Your task to perform on an android device: open sync settings in chrome Image 0: 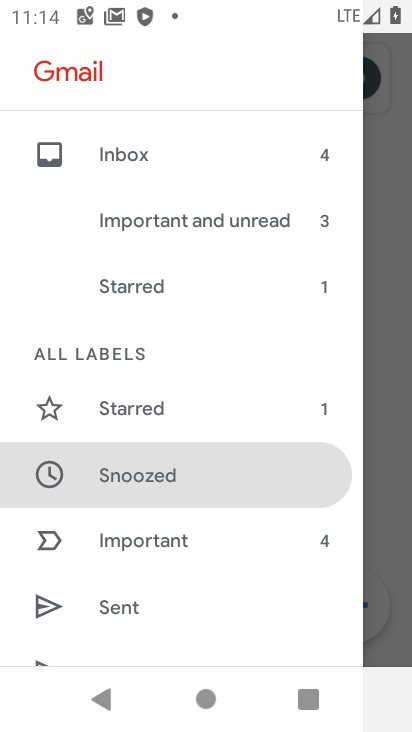
Step 0: press home button
Your task to perform on an android device: open sync settings in chrome Image 1: 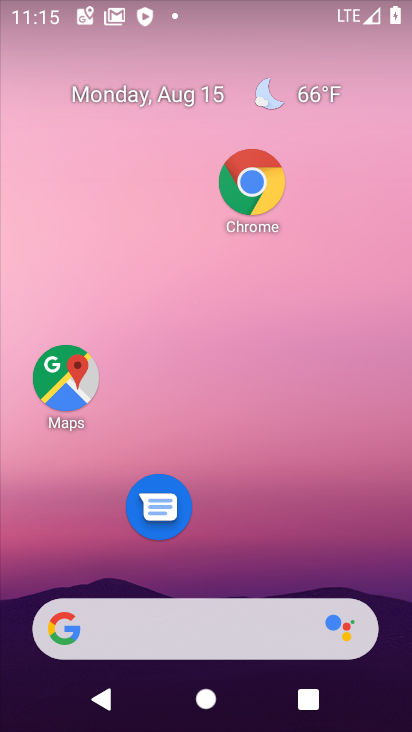
Step 1: click (251, 236)
Your task to perform on an android device: open sync settings in chrome Image 2: 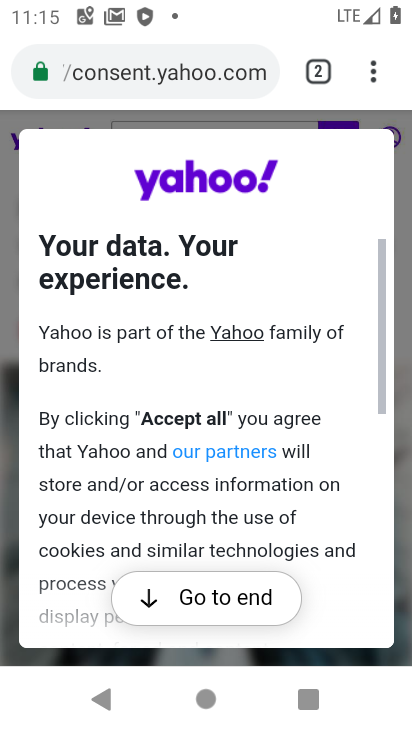
Step 2: click (365, 80)
Your task to perform on an android device: open sync settings in chrome Image 3: 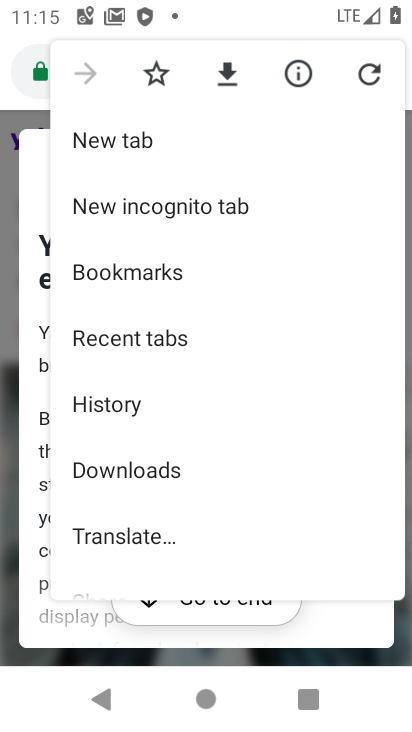
Step 3: drag from (198, 502) to (231, 118)
Your task to perform on an android device: open sync settings in chrome Image 4: 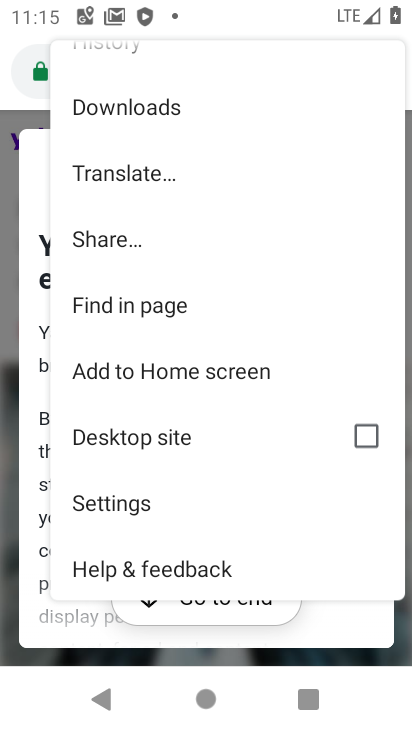
Step 4: click (211, 515)
Your task to perform on an android device: open sync settings in chrome Image 5: 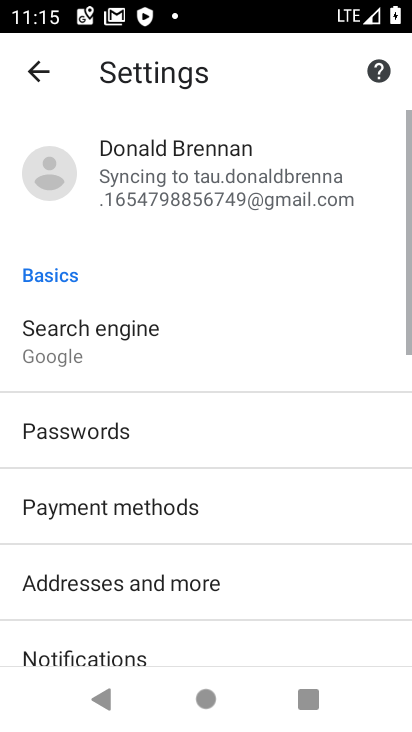
Step 5: click (123, 146)
Your task to perform on an android device: open sync settings in chrome Image 6: 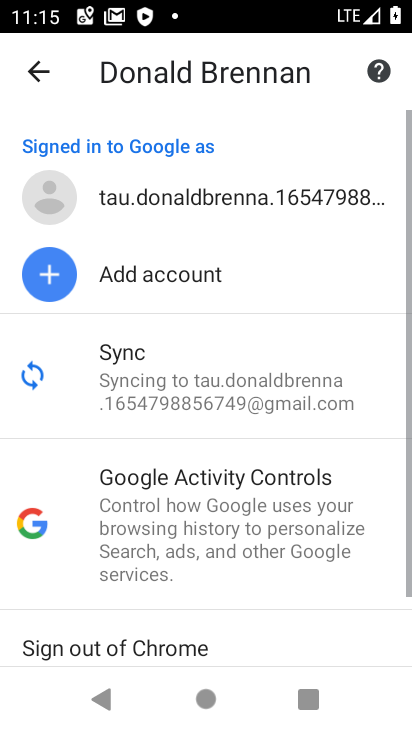
Step 6: task complete